Your task to perform on an android device: refresh tabs in the chrome app Image 0: 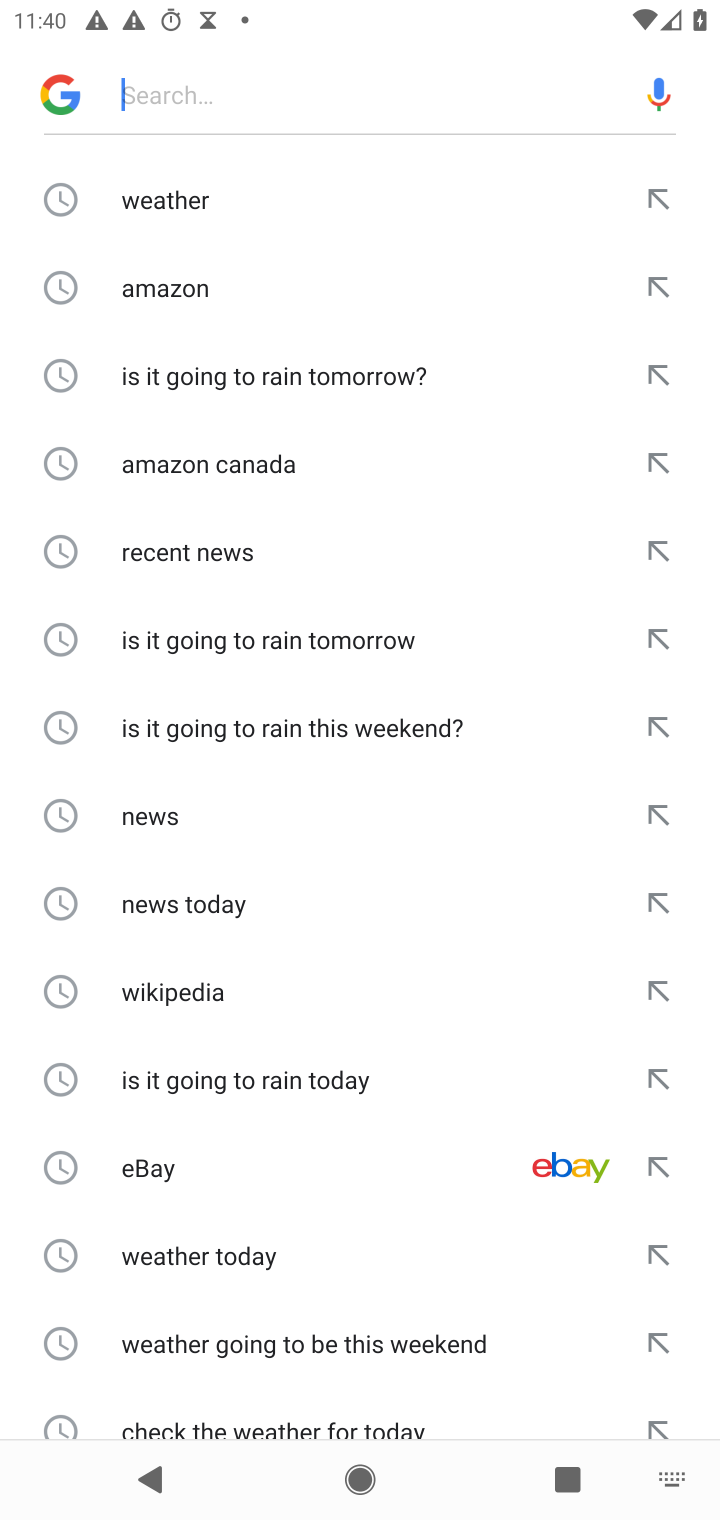
Step 0: press home button
Your task to perform on an android device: refresh tabs in the chrome app Image 1: 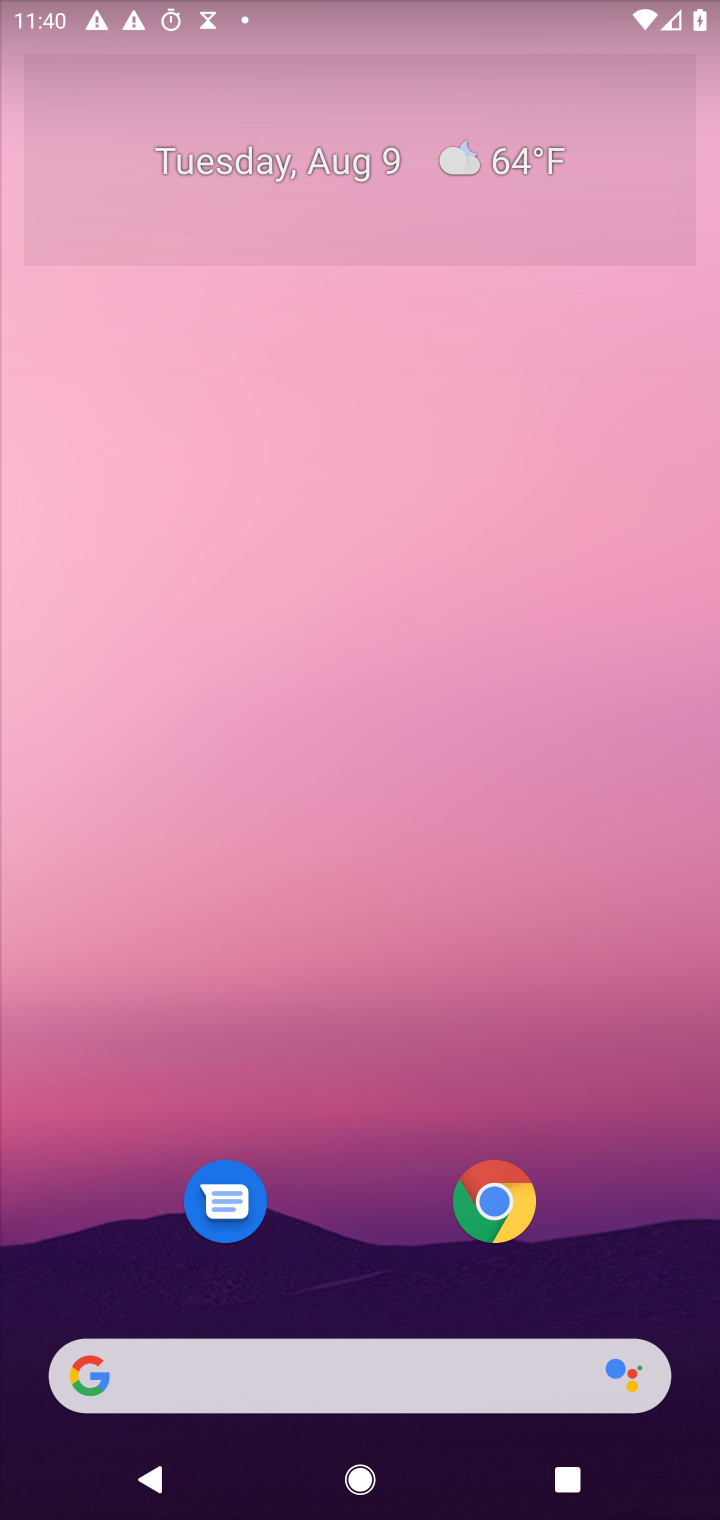
Step 1: click (500, 1215)
Your task to perform on an android device: refresh tabs in the chrome app Image 2: 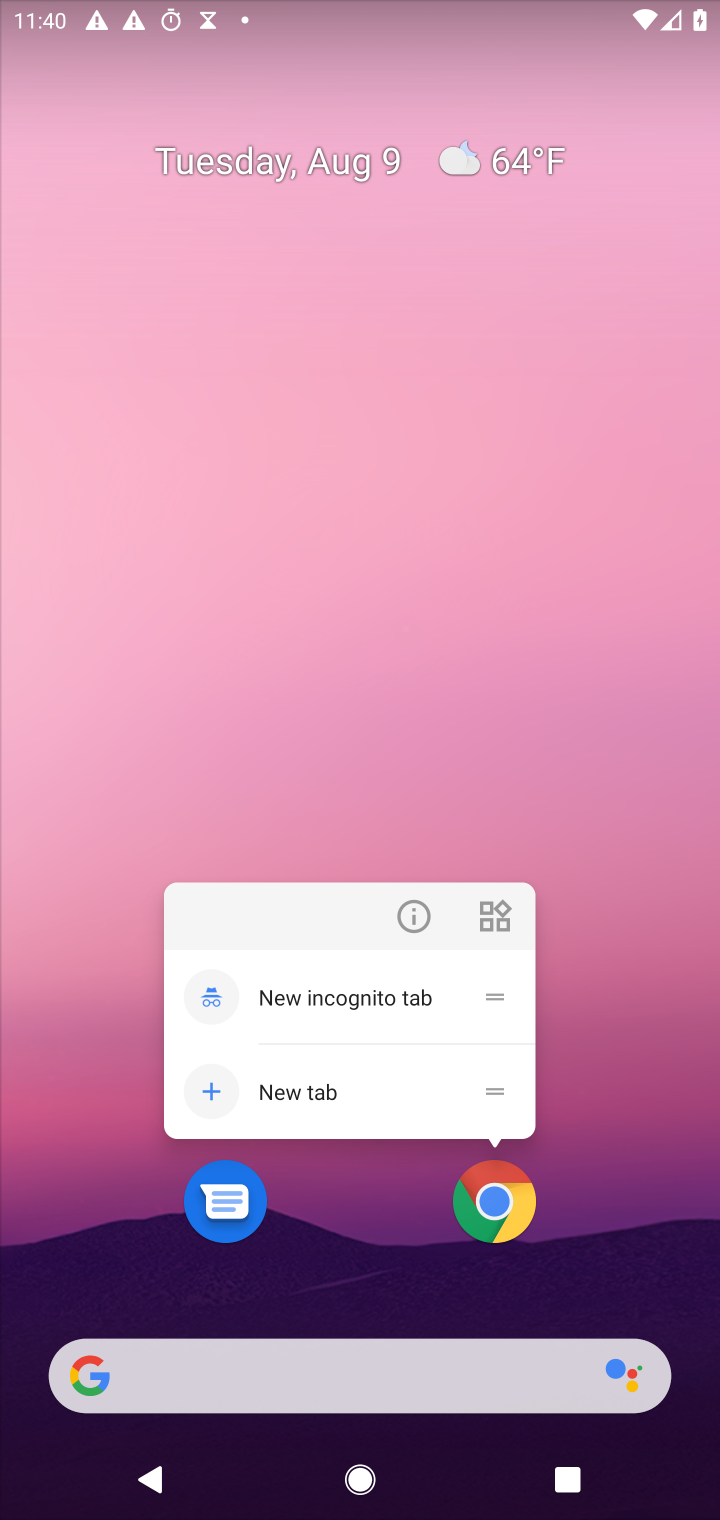
Step 2: click (500, 1215)
Your task to perform on an android device: refresh tabs in the chrome app Image 3: 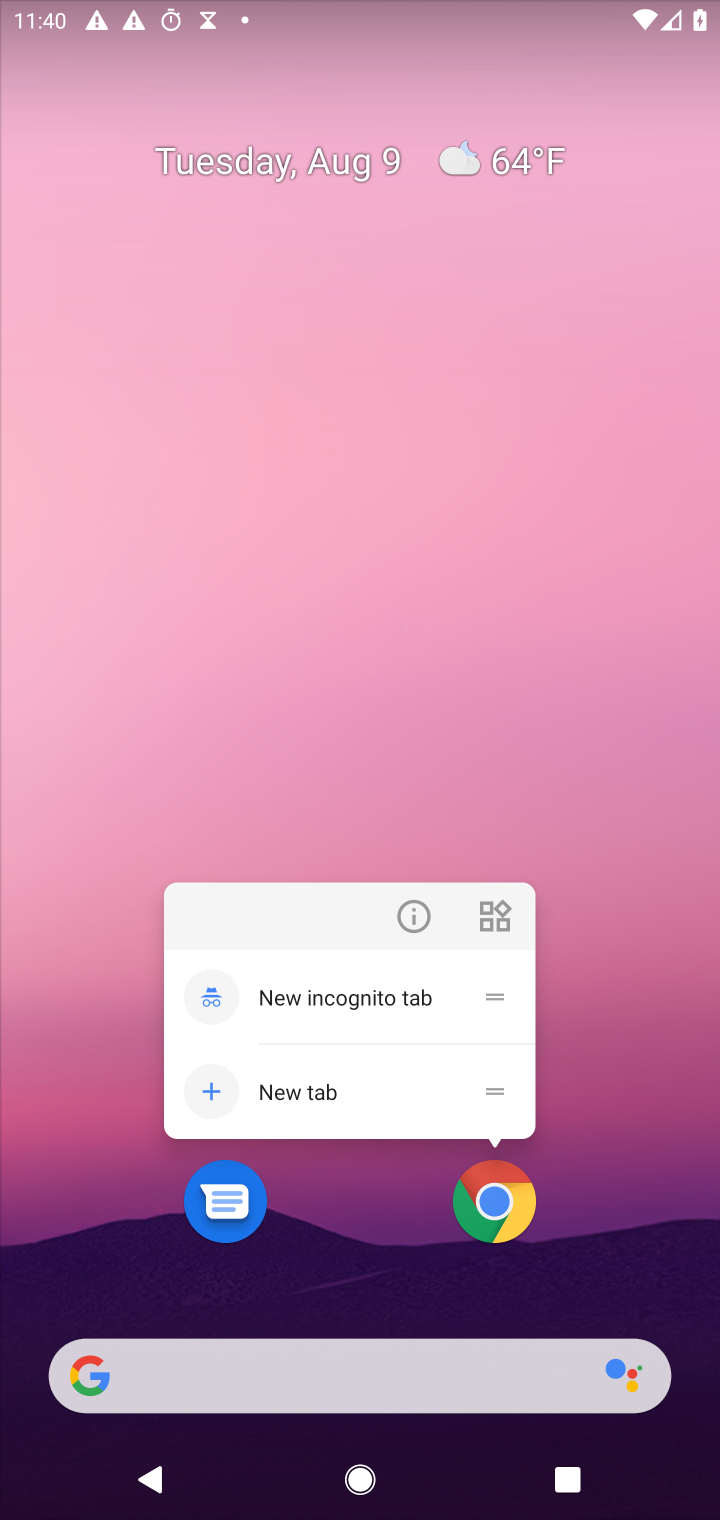
Step 3: click (516, 1218)
Your task to perform on an android device: refresh tabs in the chrome app Image 4: 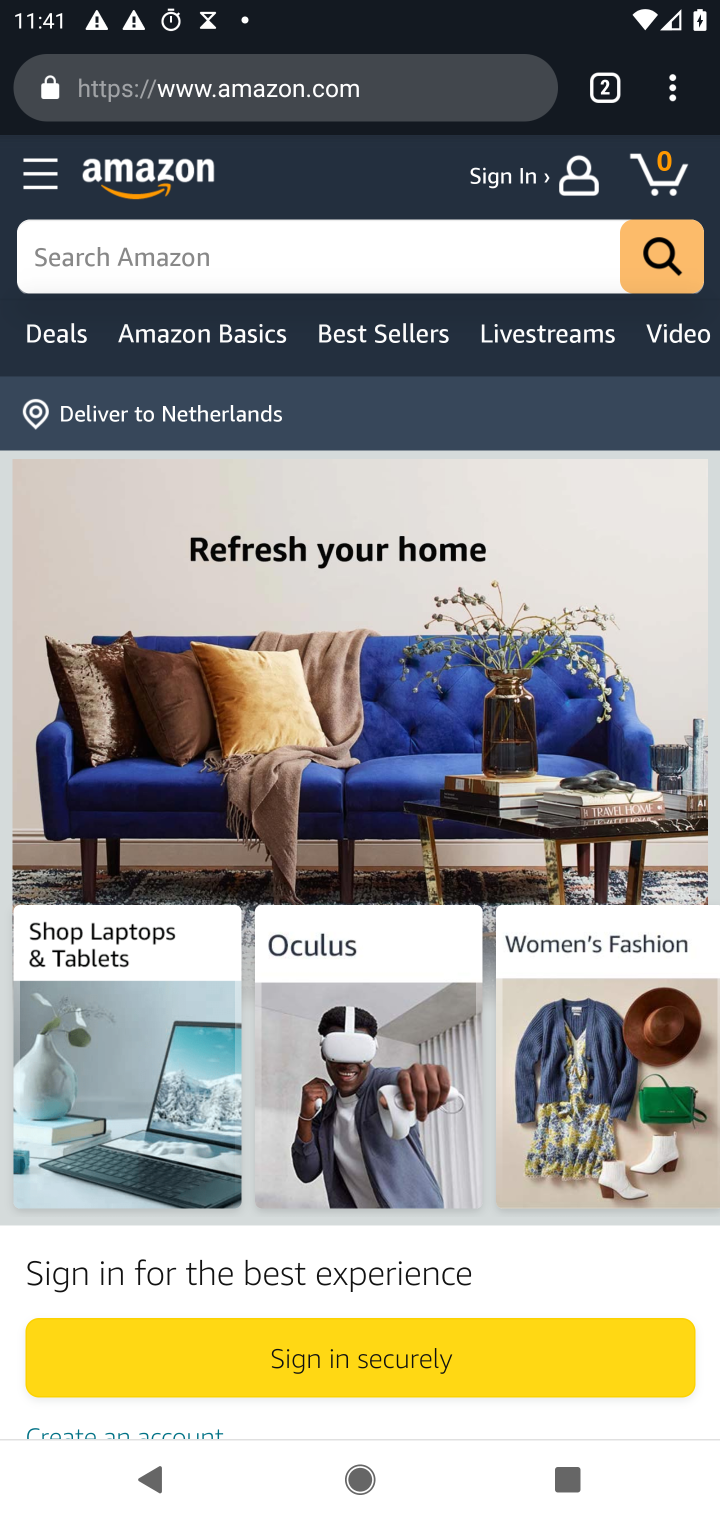
Step 4: click (663, 89)
Your task to perform on an android device: refresh tabs in the chrome app Image 5: 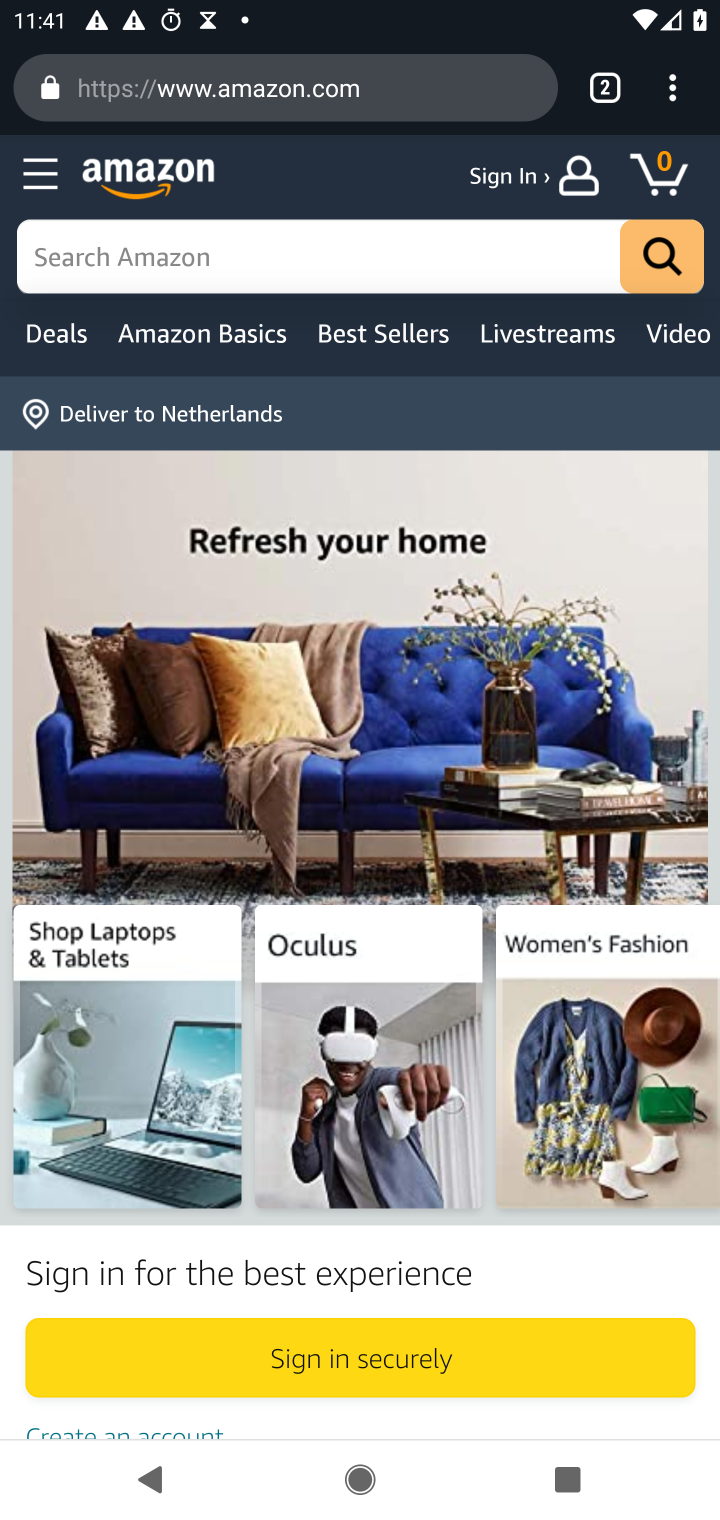
Step 5: task complete